Your task to perform on an android device: uninstall "Google News" Image 0: 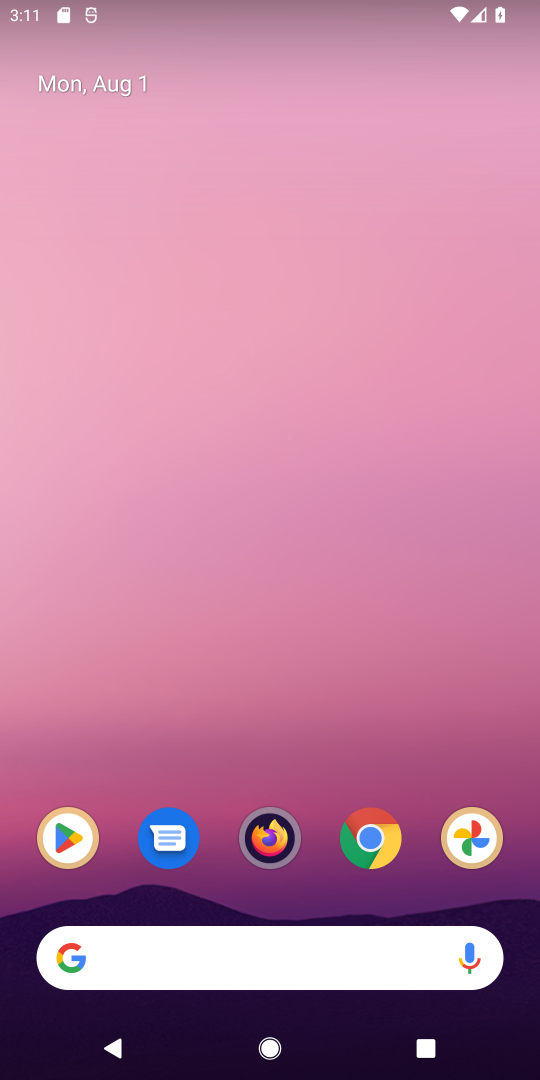
Step 0: click (68, 825)
Your task to perform on an android device: uninstall "Google News" Image 1: 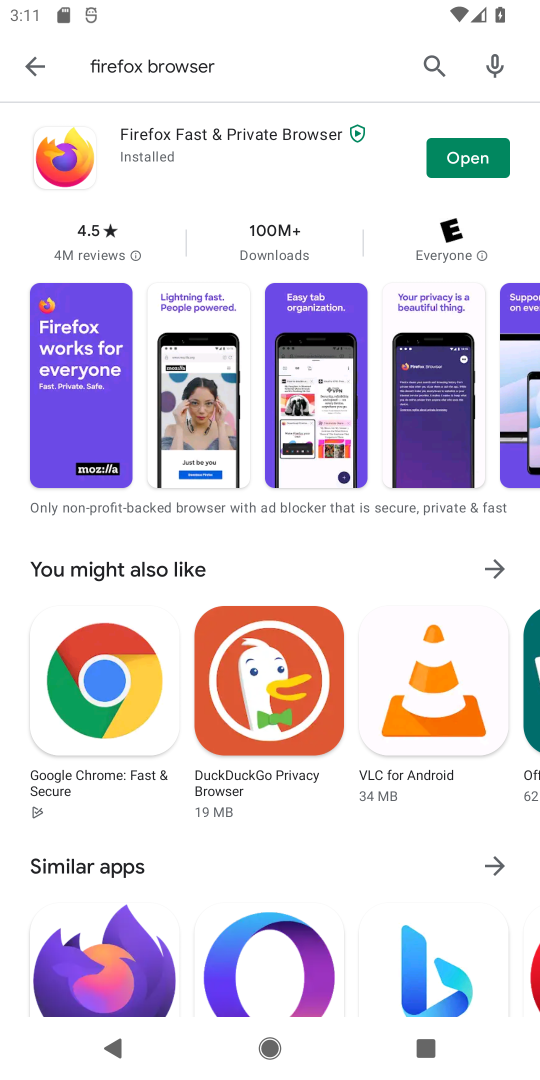
Step 1: click (428, 53)
Your task to perform on an android device: uninstall "Google News" Image 2: 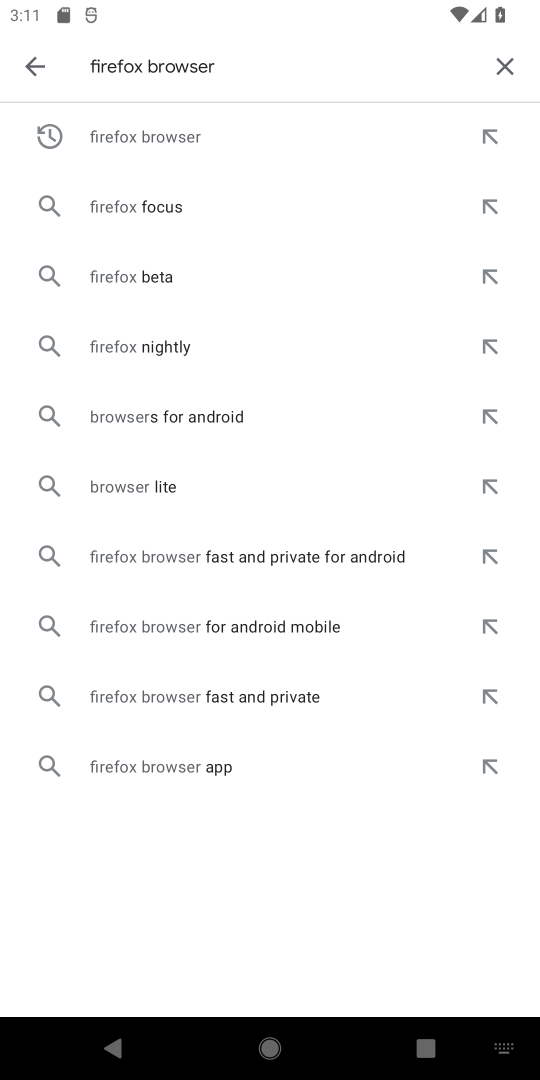
Step 2: click (487, 63)
Your task to perform on an android device: uninstall "Google News" Image 3: 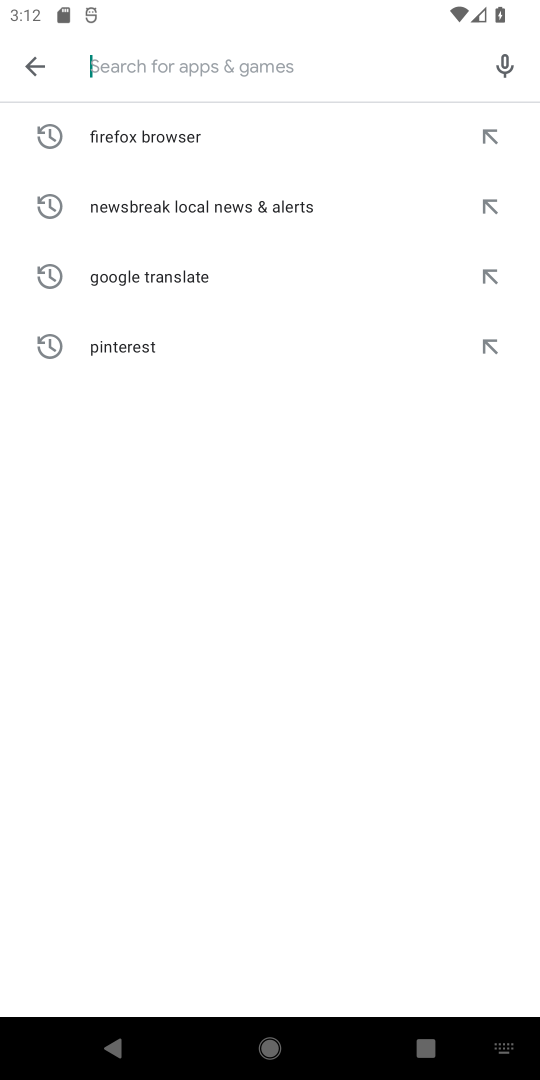
Step 3: type "Google News"
Your task to perform on an android device: uninstall "Google News" Image 4: 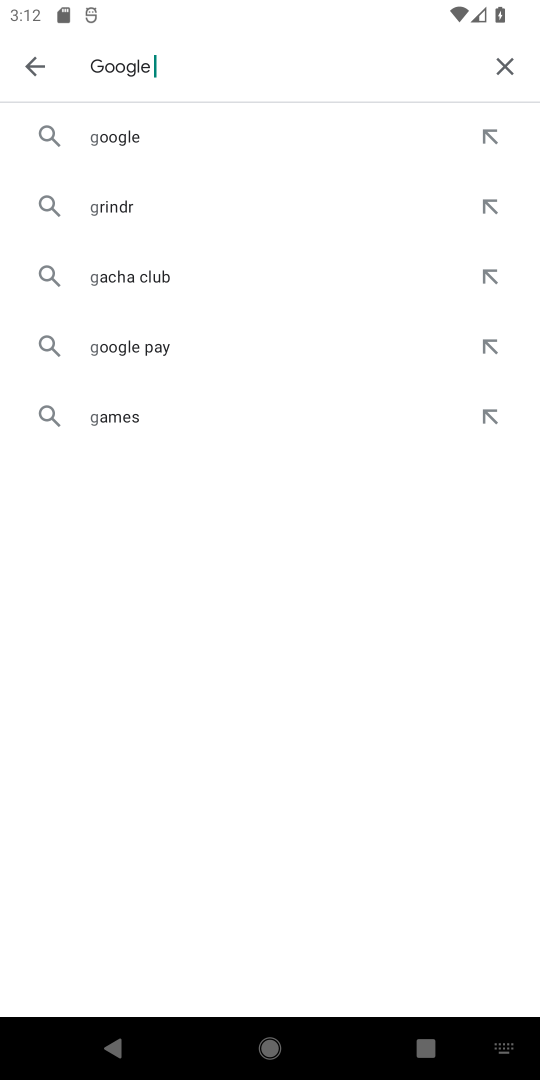
Step 4: type ""
Your task to perform on an android device: uninstall "Google News" Image 5: 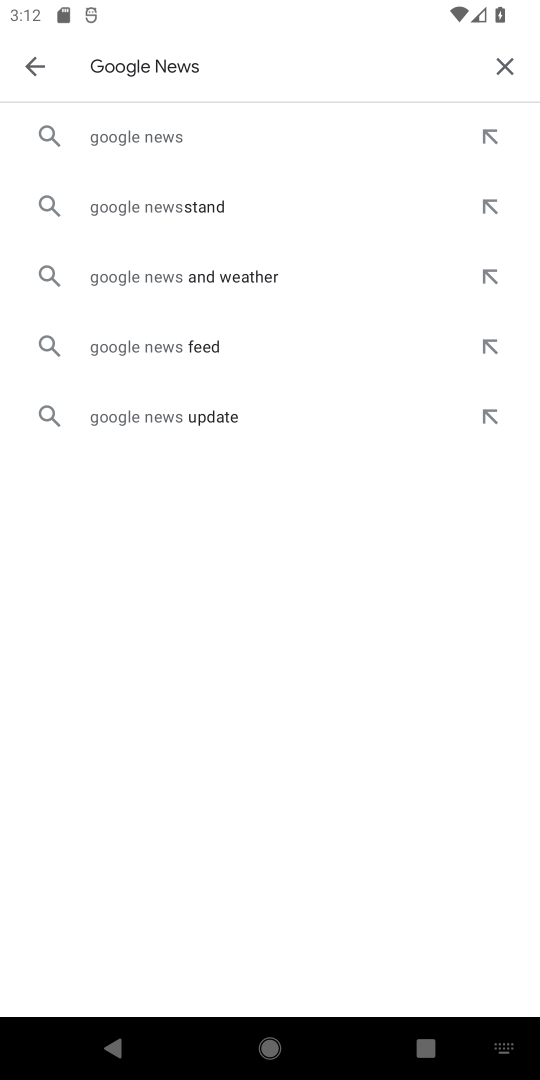
Step 5: click (177, 134)
Your task to perform on an android device: uninstall "Google News" Image 6: 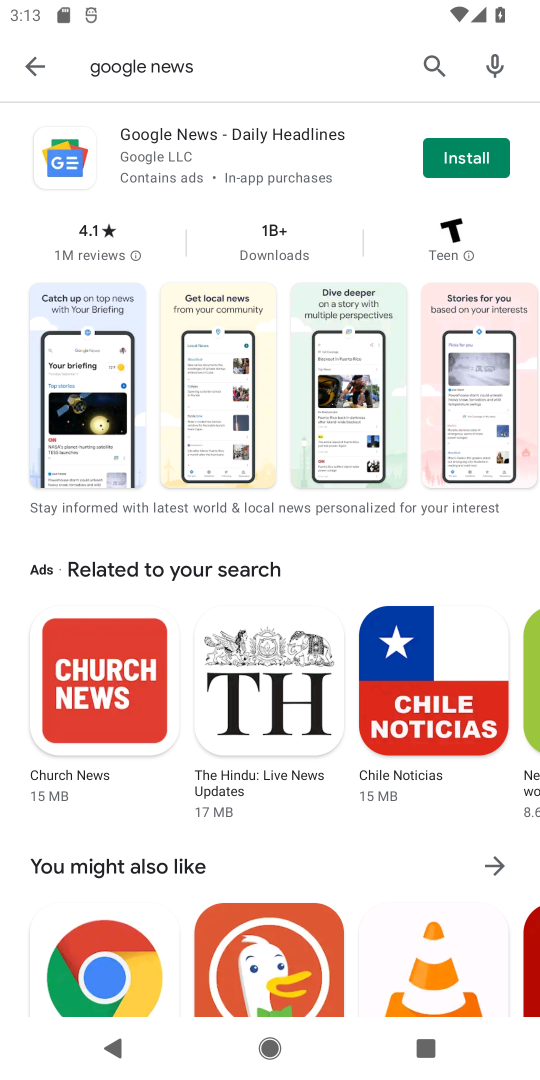
Step 6: click (207, 171)
Your task to perform on an android device: uninstall "Google News" Image 7: 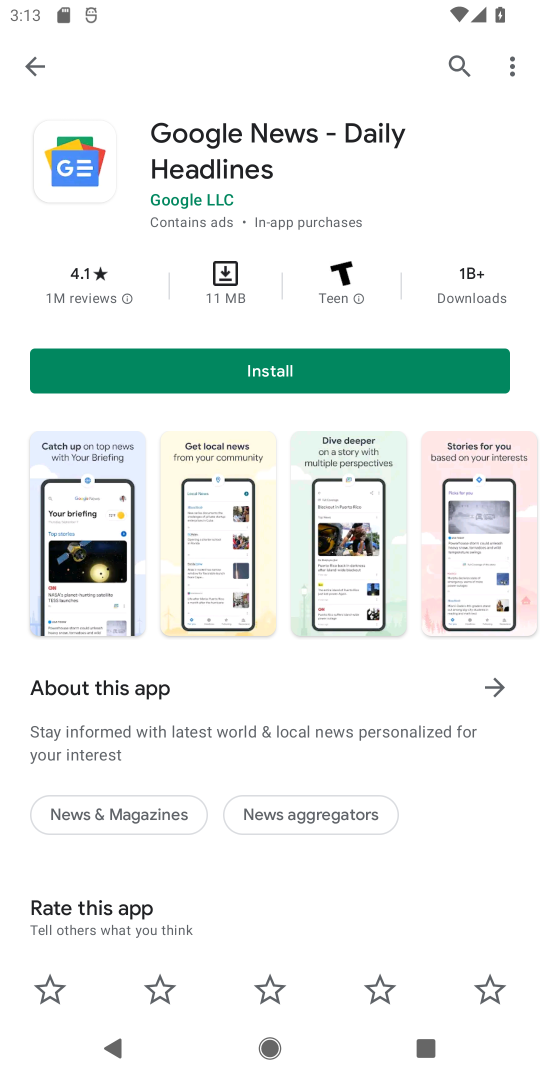
Step 7: task complete